Your task to perform on an android device: turn smart compose on in the gmail app Image 0: 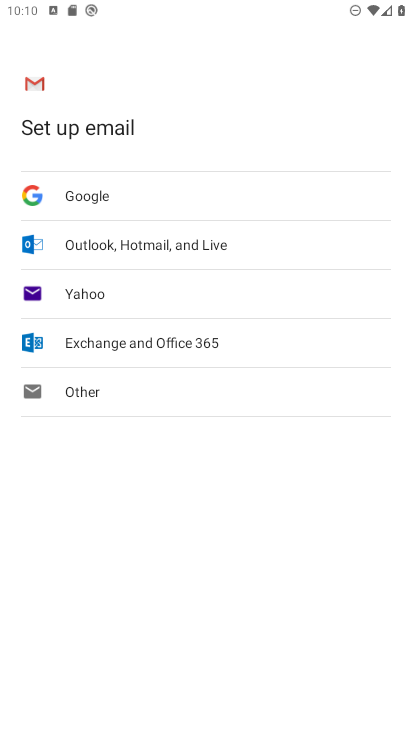
Step 0: press home button
Your task to perform on an android device: turn smart compose on in the gmail app Image 1: 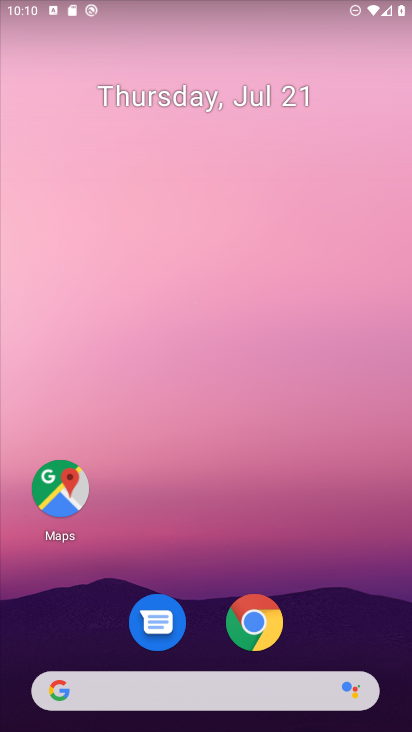
Step 1: drag from (136, 725) to (227, 73)
Your task to perform on an android device: turn smart compose on in the gmail app Image 2: 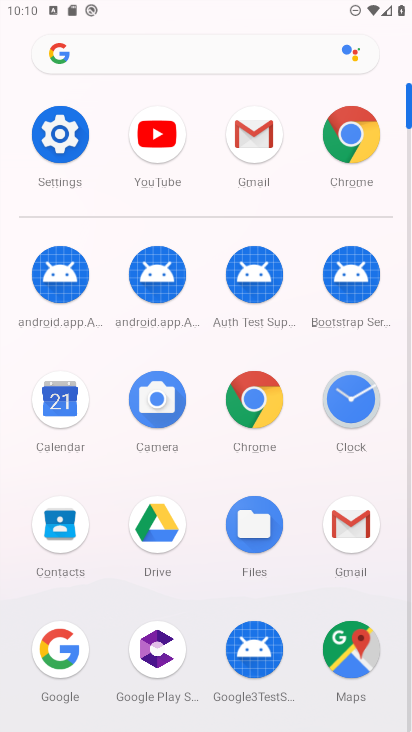
Step 2: click (247, 140)
Your task to perform on an android device: turn smart compose on in the gmail app Image 3: 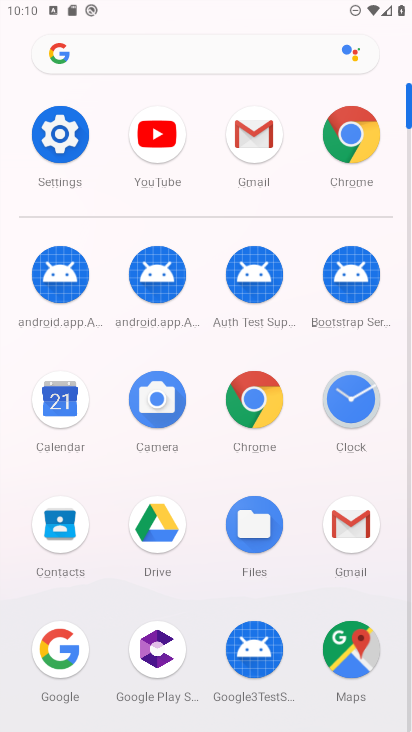
Step 3: click (247, 140)
Your task to perform on an android device: turn smart compose on in the gmail app Image 4: 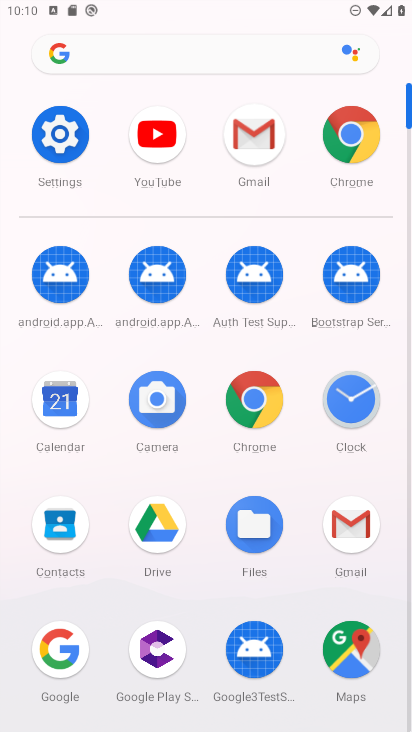
Step 4: click (247, 140)
Your task to perform on an android device: turn smart compose on in the gmail app Image 5: 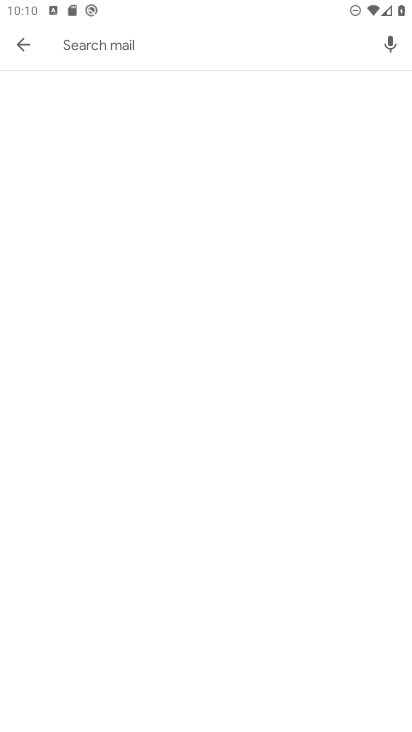
Step 5: click (22, 43)
Your task to perform on an android device: turn smart compose on in the gmail app Image 6: 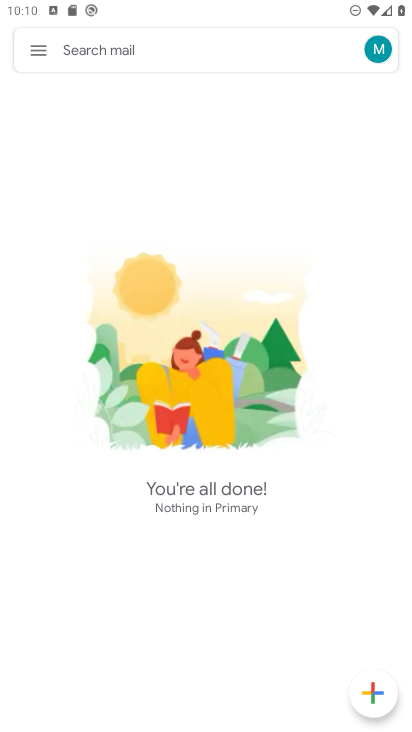
Step 6: click (41, 48)
Your task to perform on an android device: turn smart compose on in the gmail app Image 7: 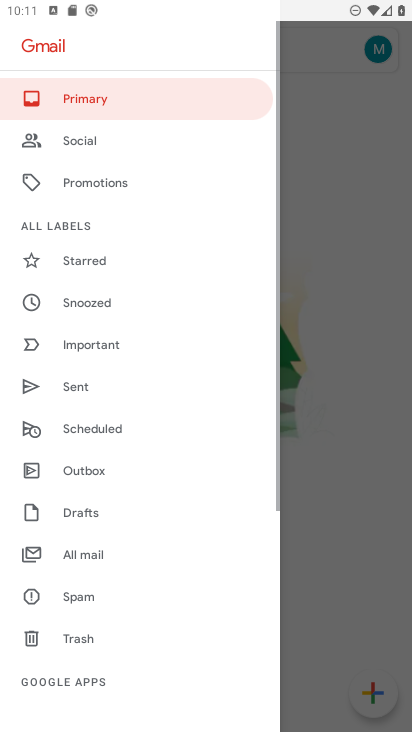
Step 7: drag from (158, 674) to (210, 68)
Your task to perform on an android device: turn smart compose on in the gmail app Image 8: 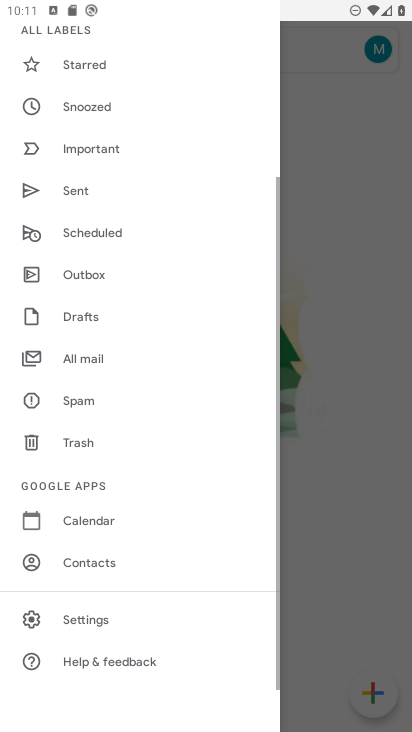
Step 8: click (145, 609)
Your task to perform on an android device: turn smart compose on in the gmail app Image 9: 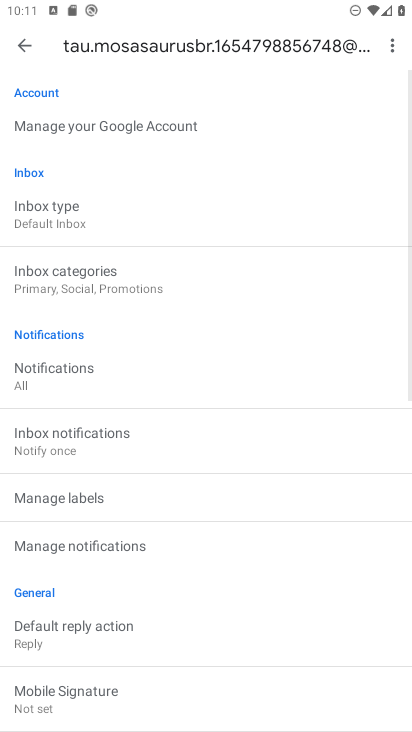
Step 9: task complete